Your task to perform on an android device: turn on airplane mode Image 0: 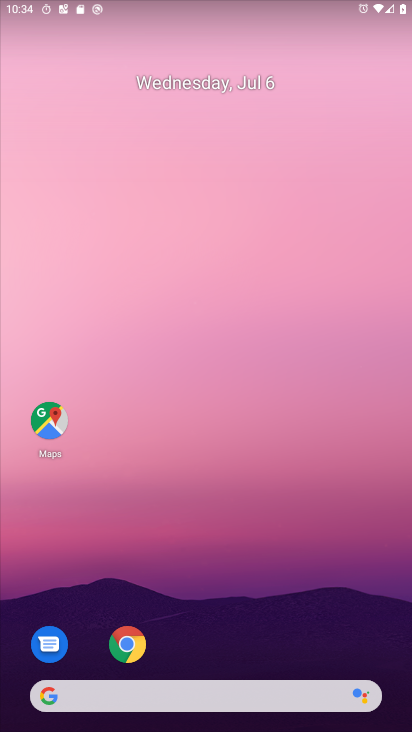
Step 0: drag from (252, 667) to (235, 243)
Your task to perform on an android device: turn on airplane mode Image 1: 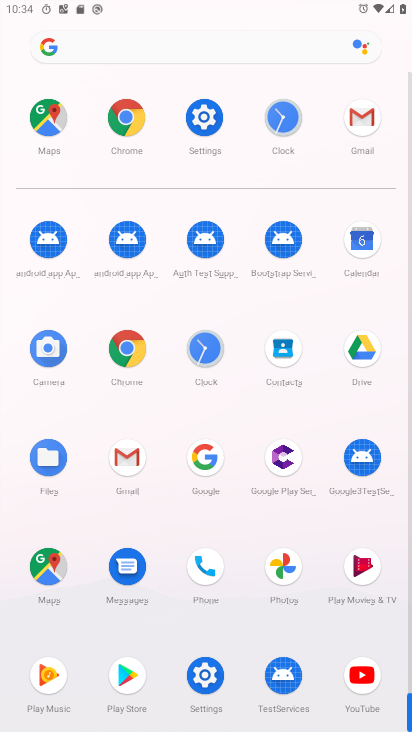
Step 1: click (212, 136)
Your task to perform on an android device: turn on airplane mode Image 2: 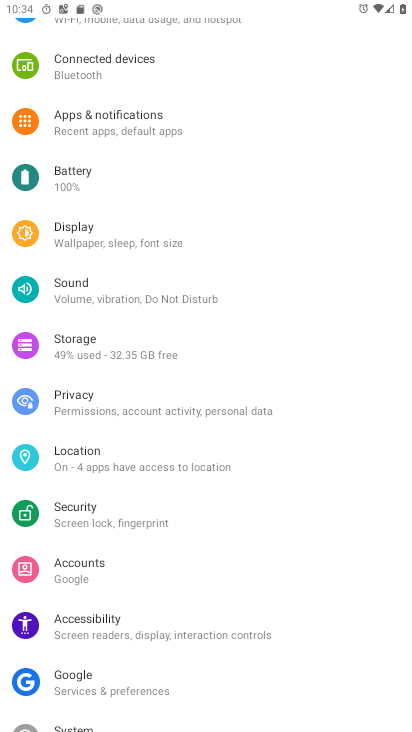
Step 2: drag from (228, 181) to (229, 568)
Your task to perform on an android device: turn on airplane mode Image 3: 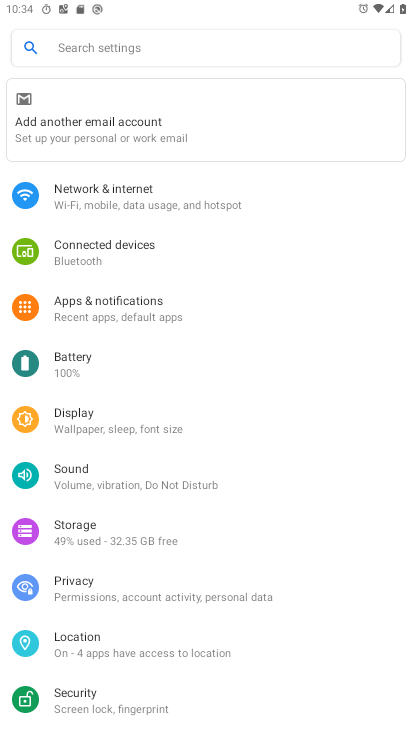
Step 3: drag from (229, 287) to (231, 548)
Your task to perform on an android device: turn on airplane mode Image 4: 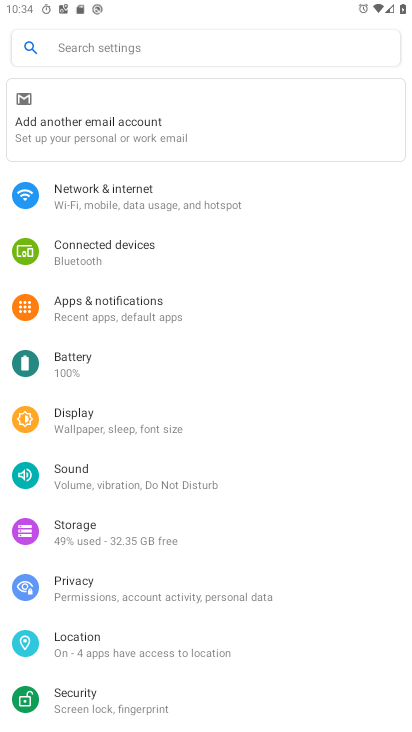
Step 4: click (175, 204)
Your task to perform on an android device: turn on airplane mode Image 5: 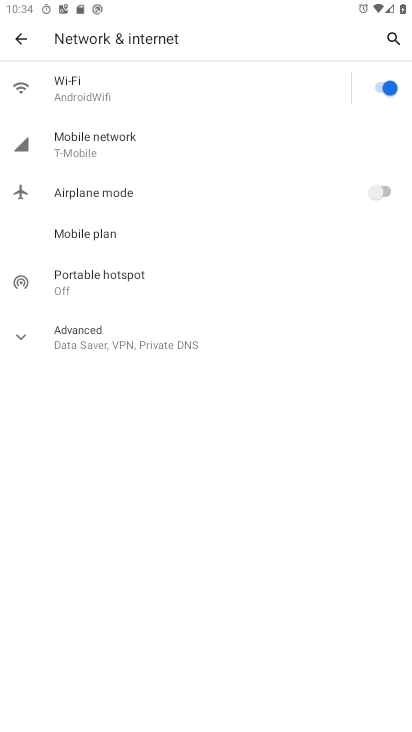
Step 5: click (226, 193)
Your task to perform on an android device: turn on airplane mode Image 6: 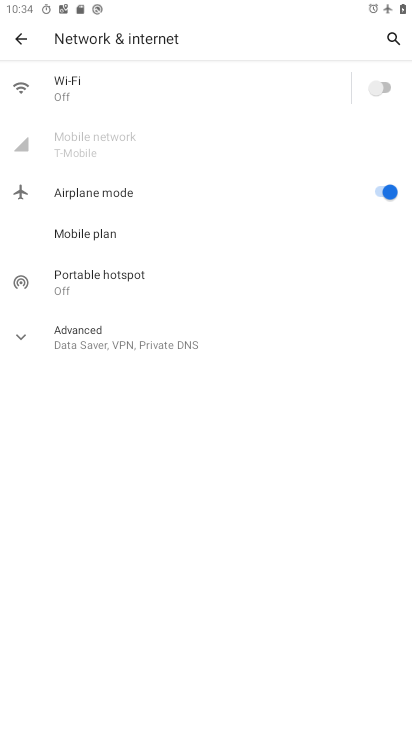
Step 6: task complete